Your task to perform on an android device: Open calendar and show me the first week of next month Image 0: 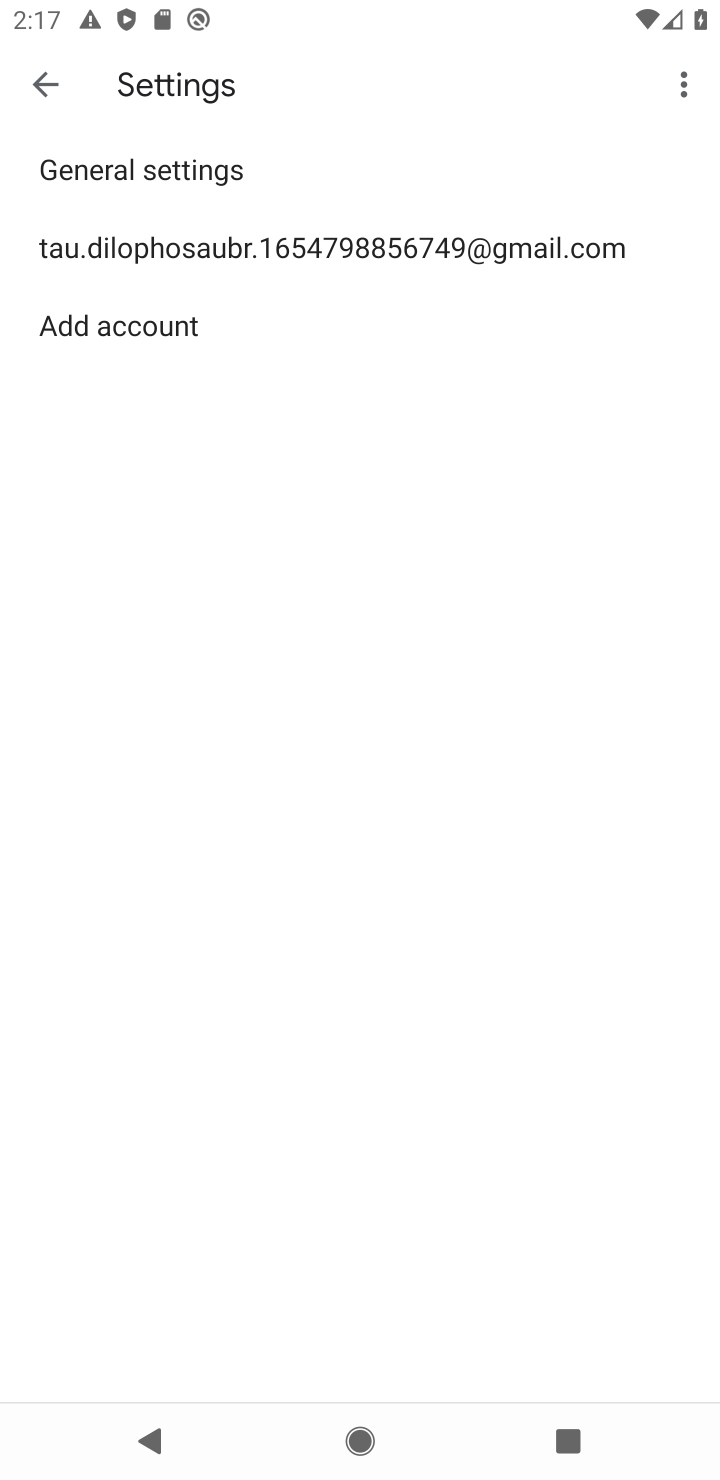
Step 0: press home button
Your task to perform on an android device: Open calendar and show me the first week of next month Image 1: 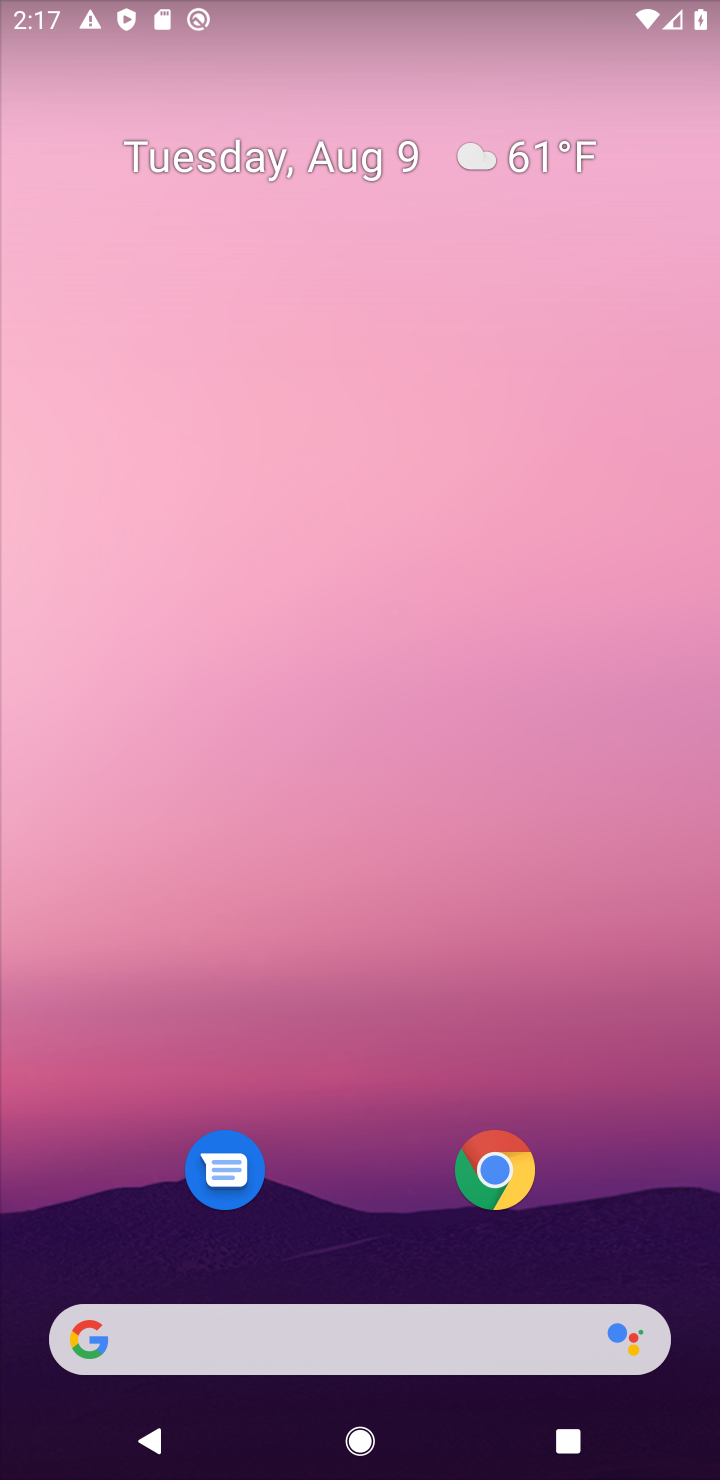
Step 1: drag from (304, 1233) to (126, 20)
Your task to perform on an android device: Open calendar and show me the first week of next month Image 2: 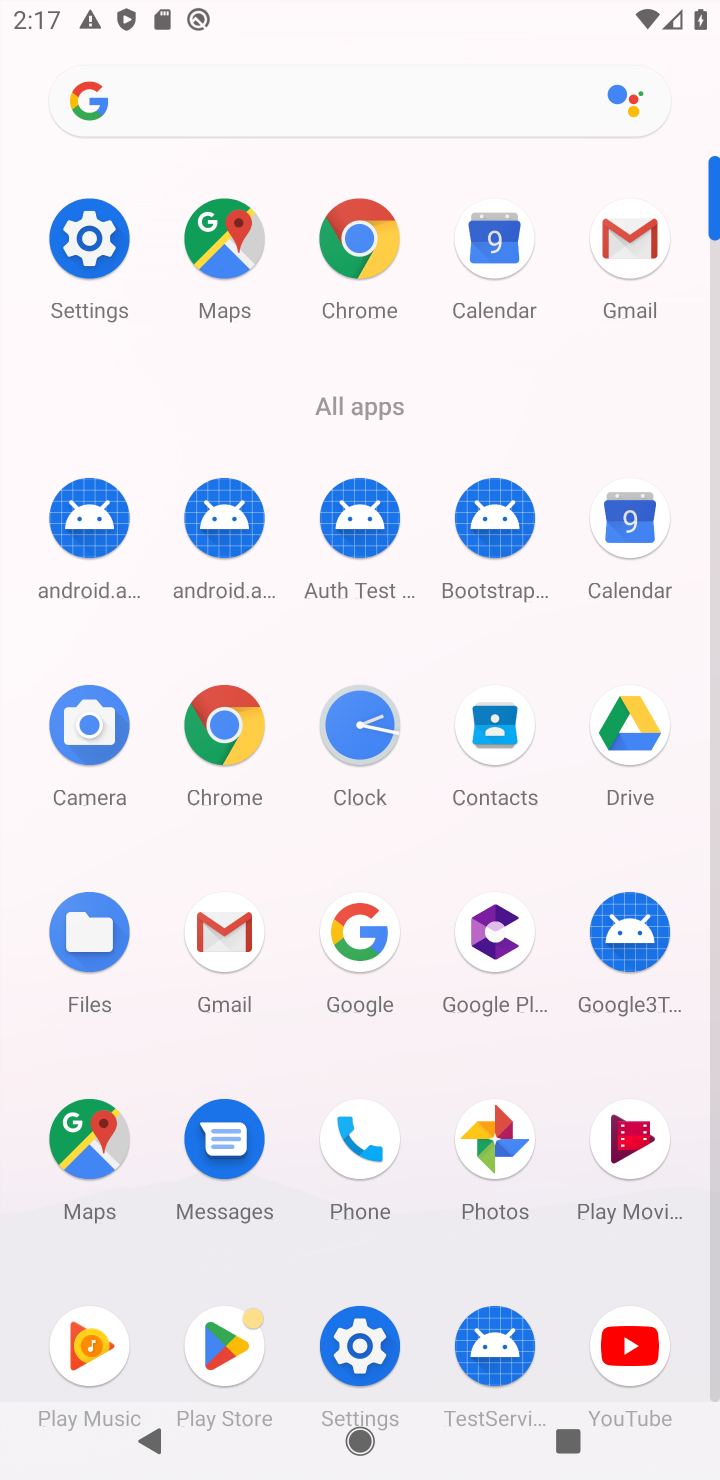
Step 2: click (636, 565)
Your task to perform on an android device: Open calendar and show me the first week of next month Image 3: 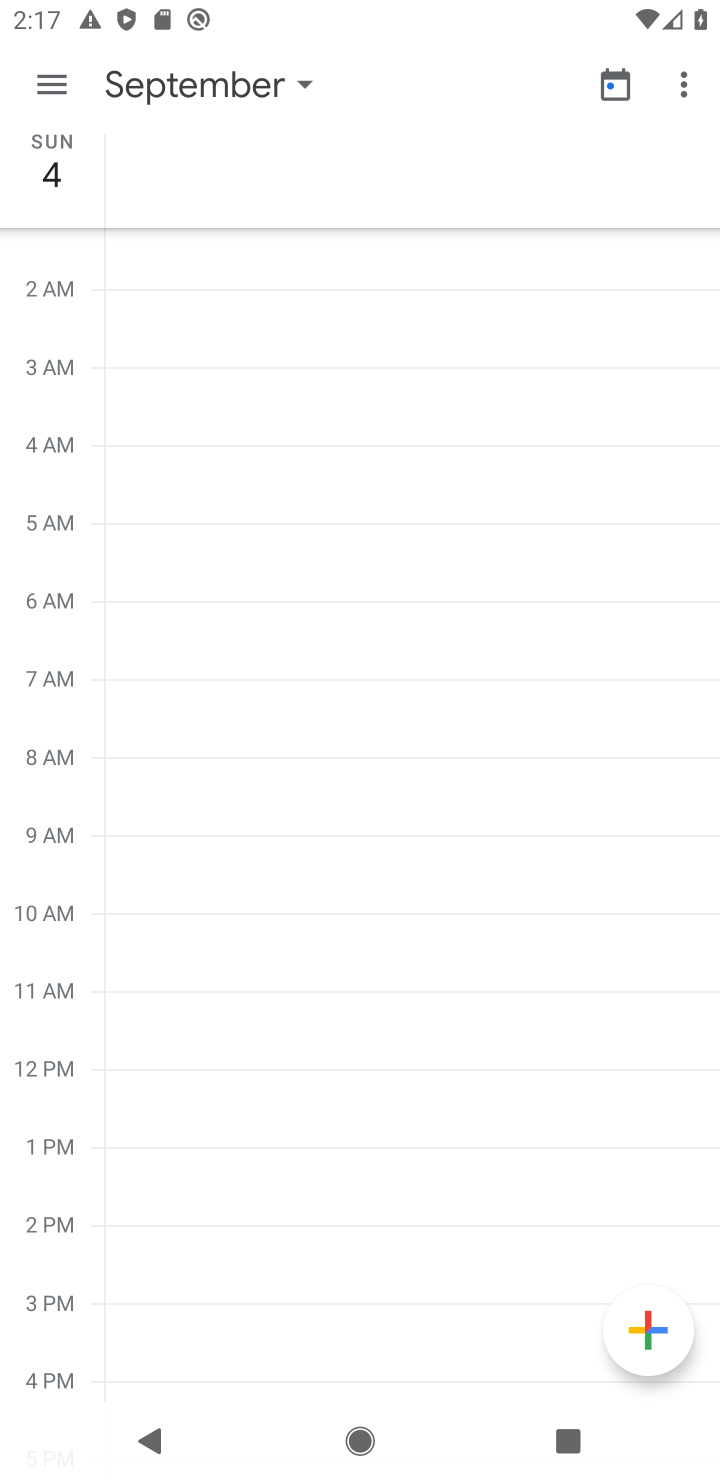
Step 3: click (58, 86)
Your task to perform on an android device: Open calendar and show me the first week of next month Image 4: 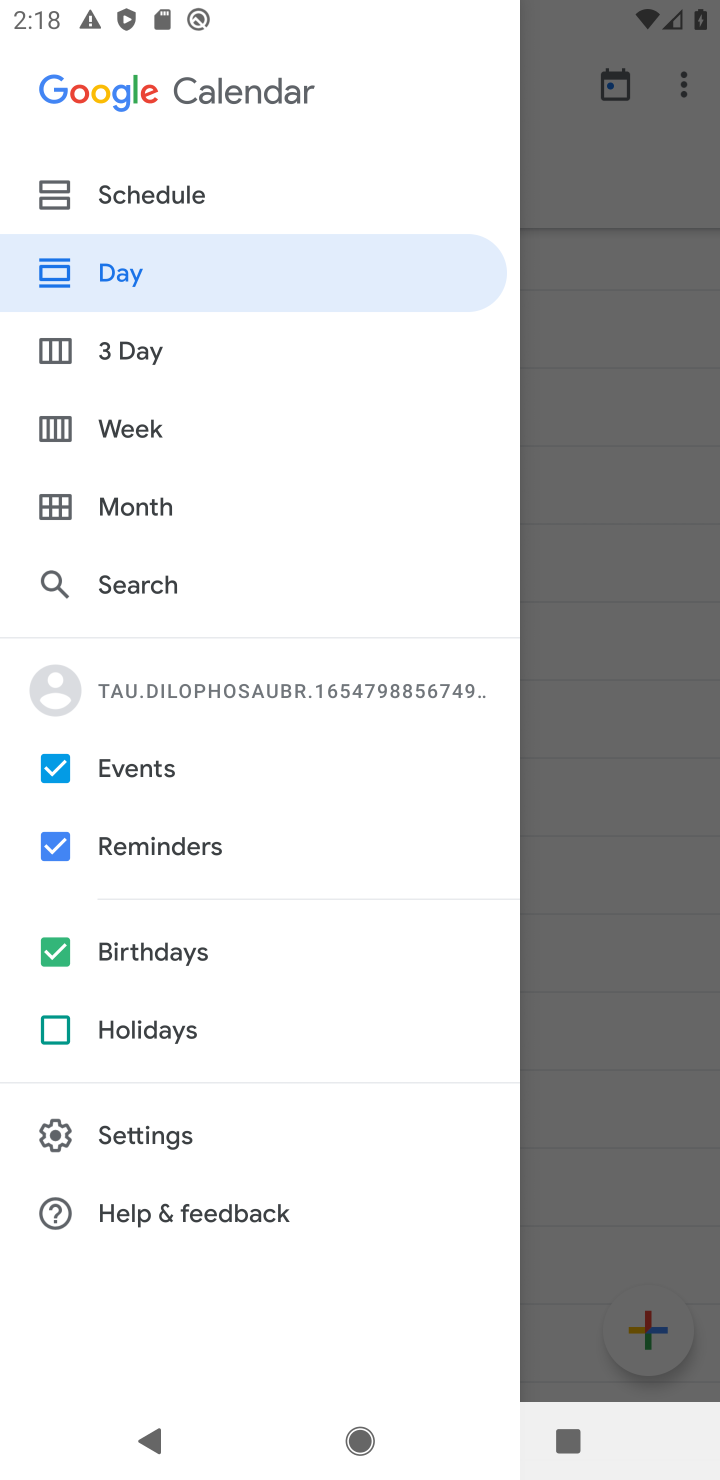
Step 4: click (125, 431)
Your task to perform on an android device: Open calendar and show me the first week of next month Image 5: 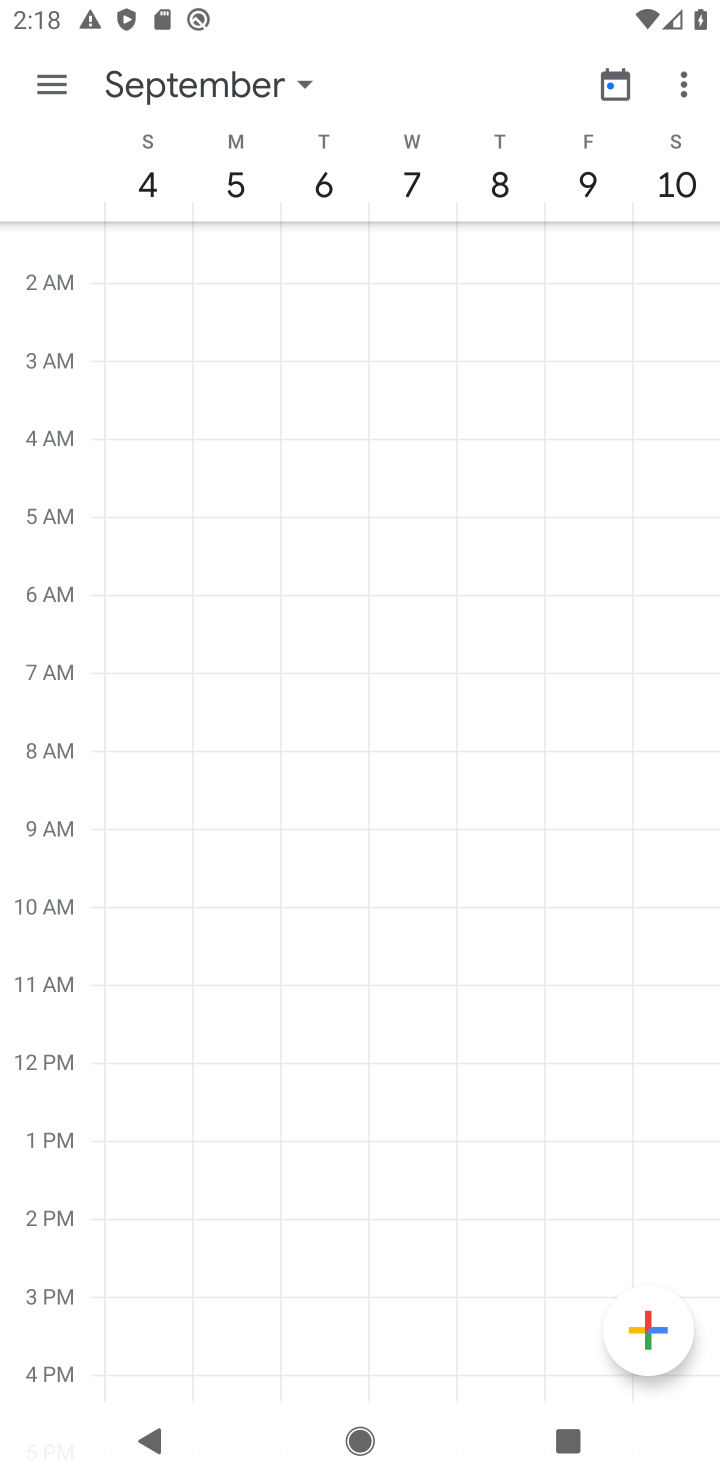
Step 5: task complete